Your task to perform on an android device: change timer sound Image 0: 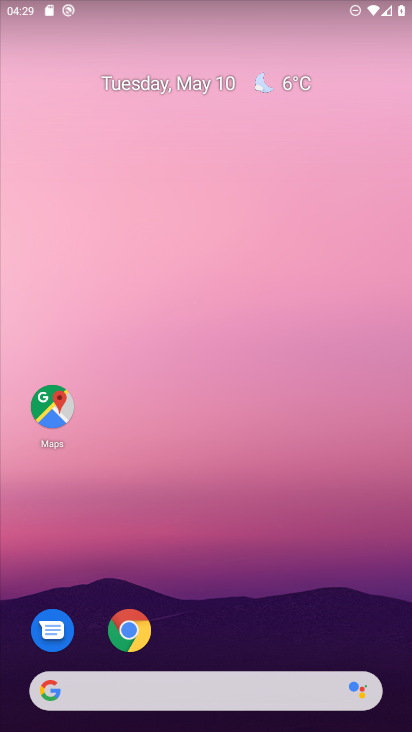
Step 0: drag from (238, 667) to (331, 72)
Your task to perform on an android device: change timer sound Image 1: 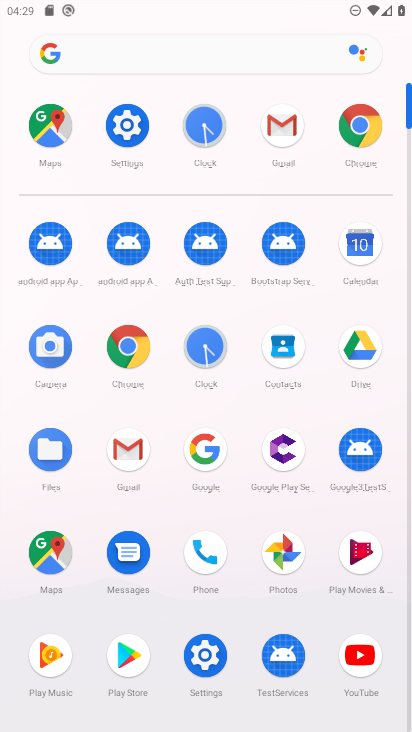
Step 1: click (191, 351)
Your task to perform on an android device: change timer sound Image 2: 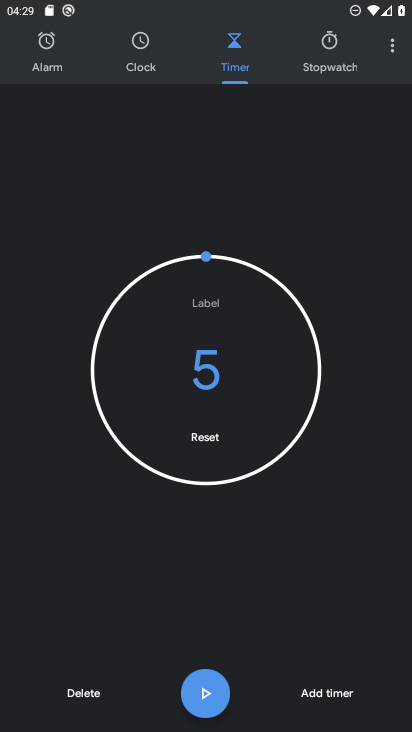
Step 2: click (383, 58)
Your task to perform on an android device: change timer sound Image 3: 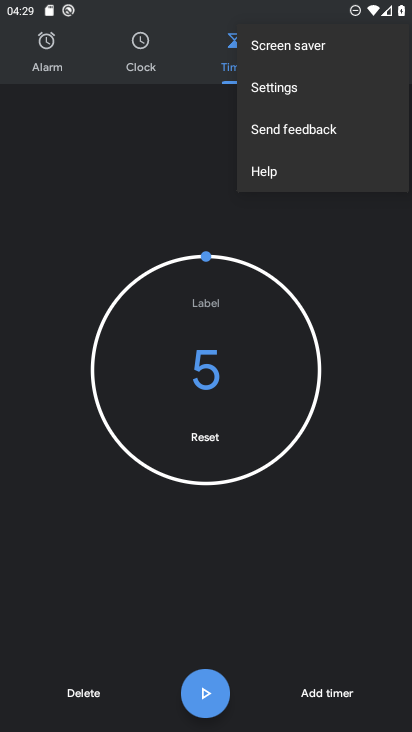
Step 3: click (325, 80)
Your task to perform on an android device: change timer sound Image 4: 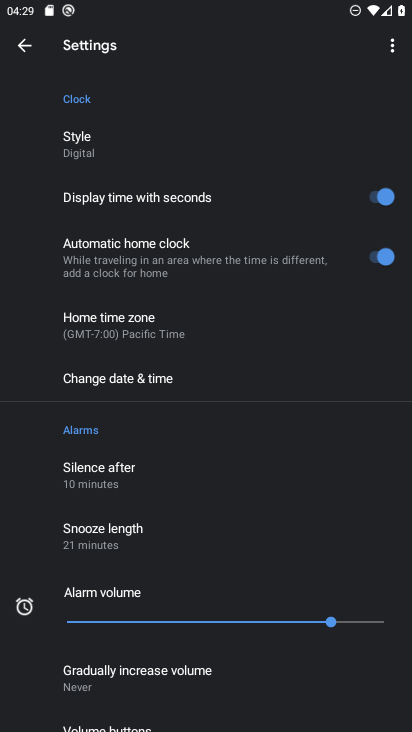
Step 4: drag from (112, 661) to (183, 345)
Your task to perform on an android device: change timer sound Image 5: 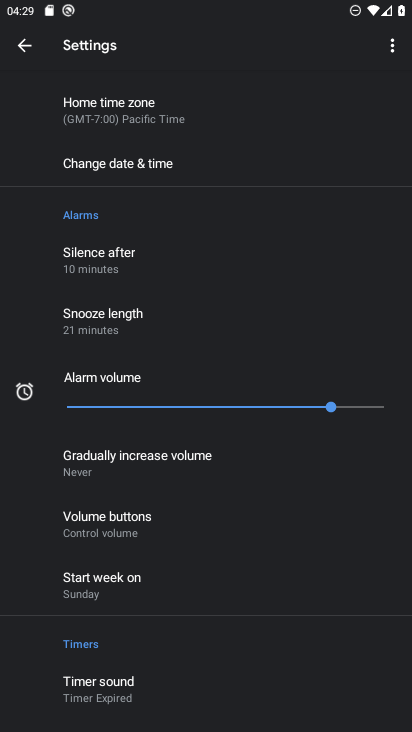
Step 5: click (149, 696)
Your task to perform on an android device: change timer sound Image 6: 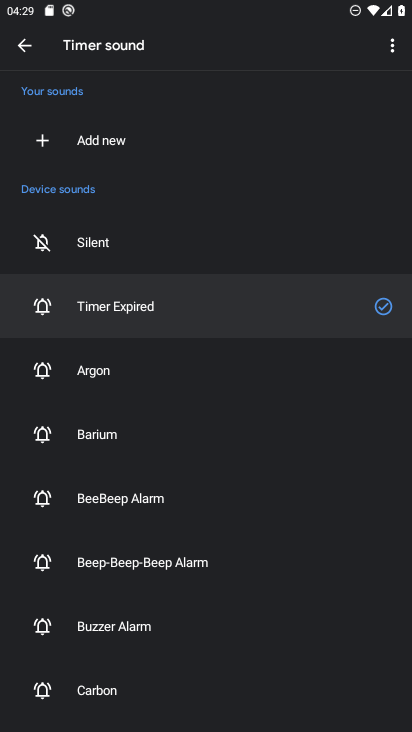
Step 6: click (141, 549)
Your task to perform on an android device: change timer sound Image 7: 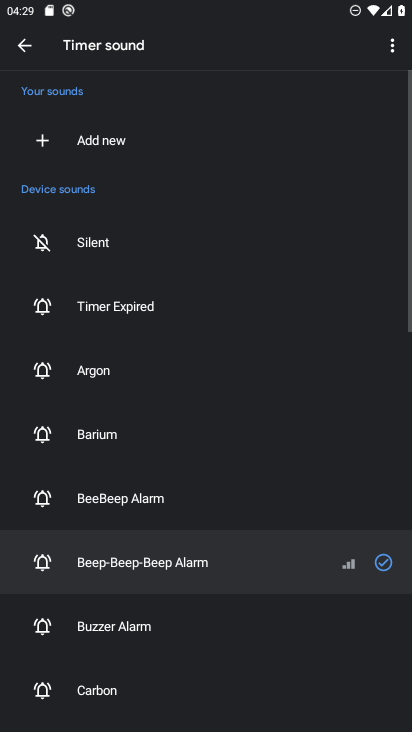
Step 7: task complete